Your task to perform on an android device: turn pop-ups off in chrome Image 0: 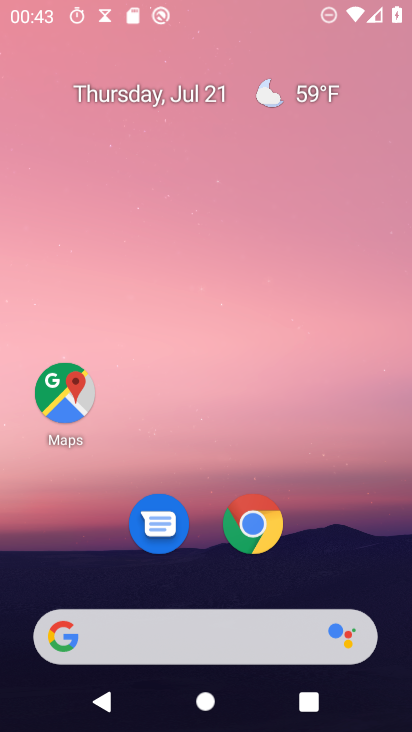
Step 0: press home button
Your task to perform on an android device: turn pop-ups off in chrome Image 1: 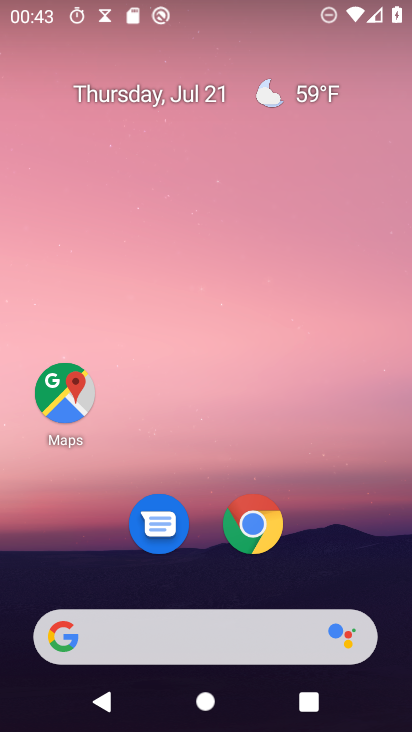
Step 1: click (253, 529)
Your task to perform on an android device: turn pop-ups off in chrome Image 2: 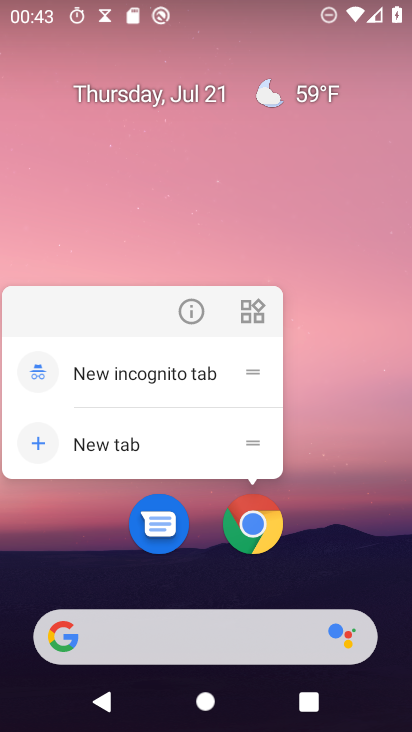
Step 2: click (253, 529)
Your task to perform on an android device: turn pop-ups off in chrome Image 3: 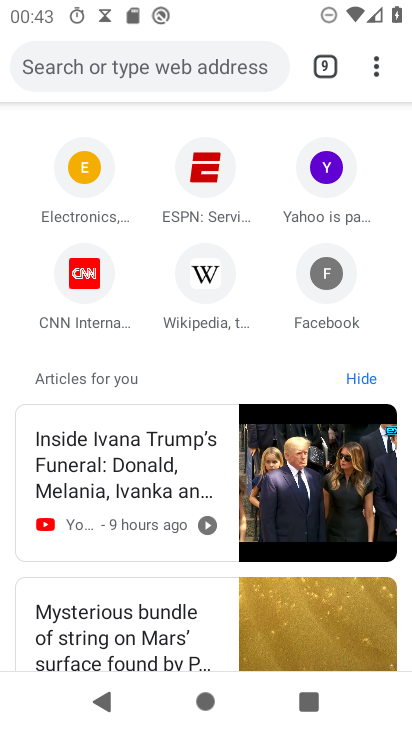
Step 3: drag from (377, 71) to (229, 562)
Your task to perform on an android device: turn pop-ups off in chrome Image 4: 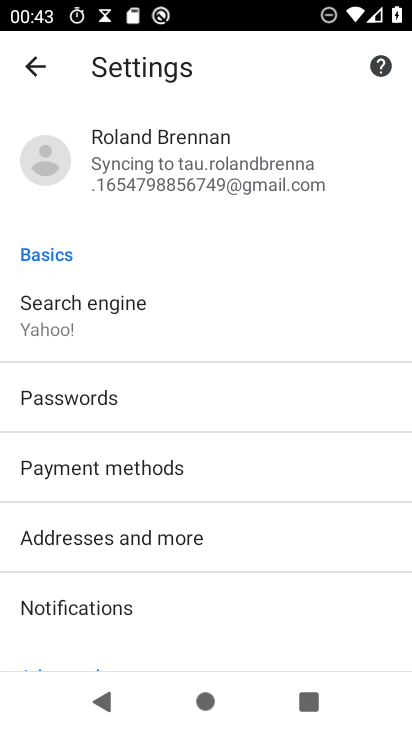
Step 4: drag from (209, 579) to (323, 82)
Your task to perform on an android device: turn pop-ups off in chrome Image 5: 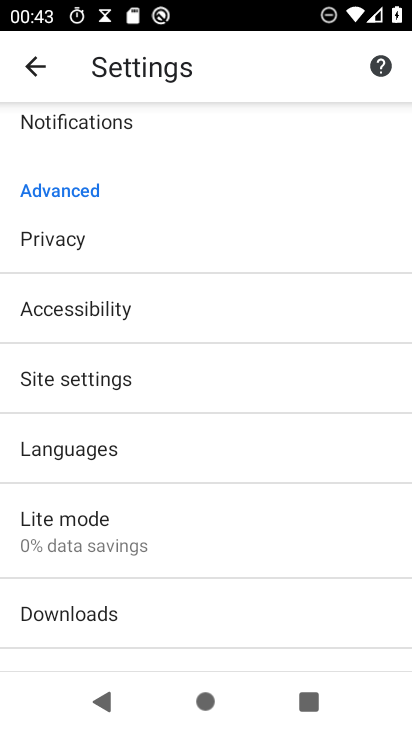
Step 5: click (119, 397)
Your task to perform on an android device: turn pop-ups off in chrome Image 6: 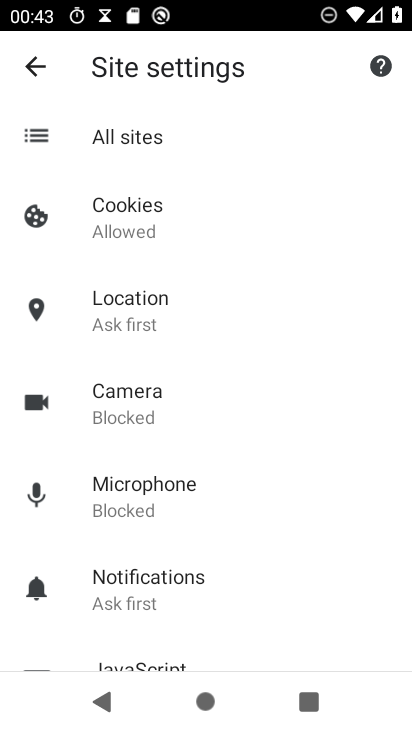
Step 6: drag from (226, 568) to (302, 147)
Your task to perform on an android device: turn pop-ups off in chrome Image 7: 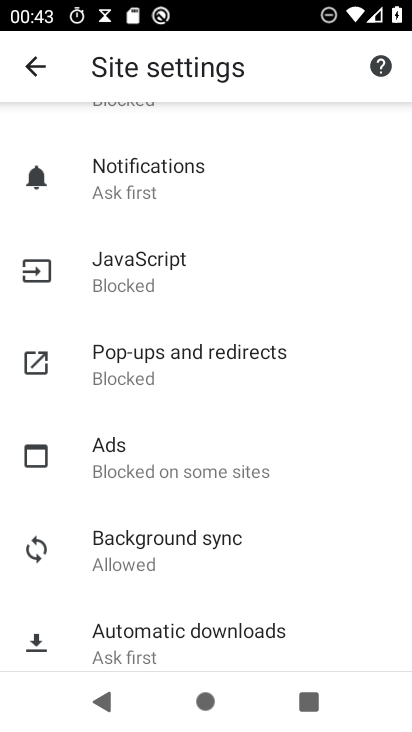
Step 7: click (171, 358)
Your task to perform on an android device: turn pop-ups off in chrome Image 8: 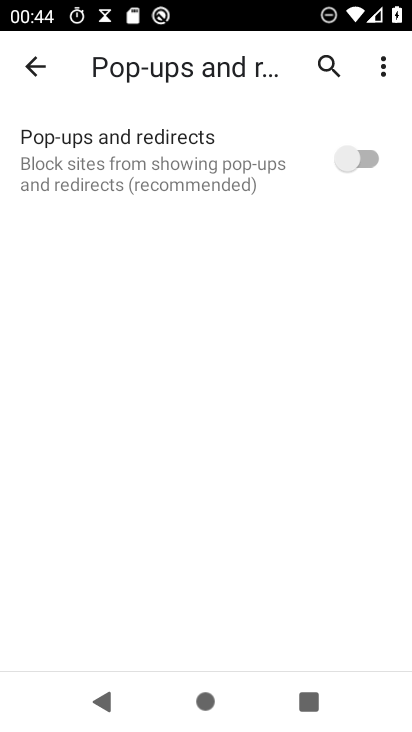
Step 8: task complete